Your task to perform on an android device: Go to Wikipedia Image 0: 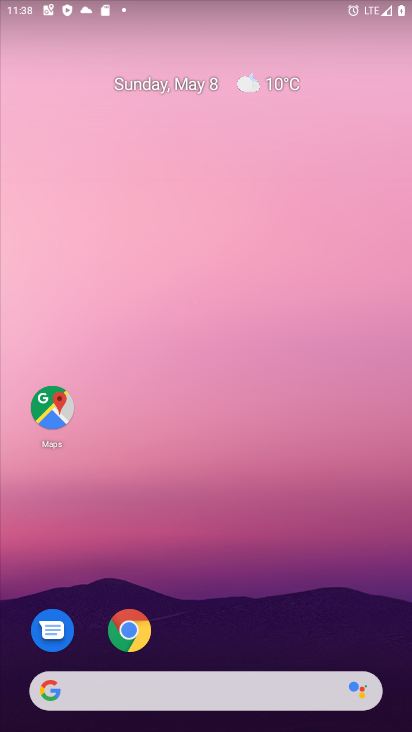
Step 0: drag from (347, 635) to (308, 78)
Your task to perform on an android device: Go to Wikipedia Image 1: 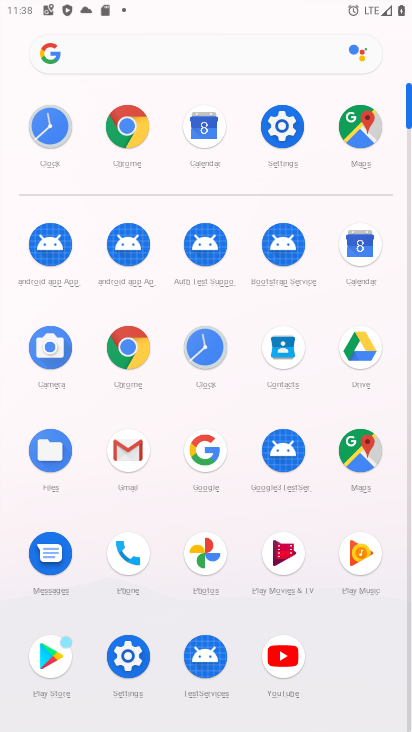
Step 1: click (112, 366)
Your task to perform on an android device: Go to Wikipedia Image 2: 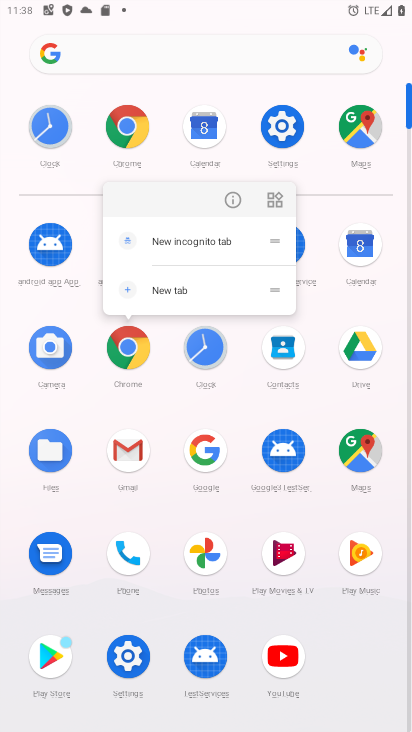
Step 2: click (135, 343)
Your task to perform on an android device: Go to Wikipedia Image 3: 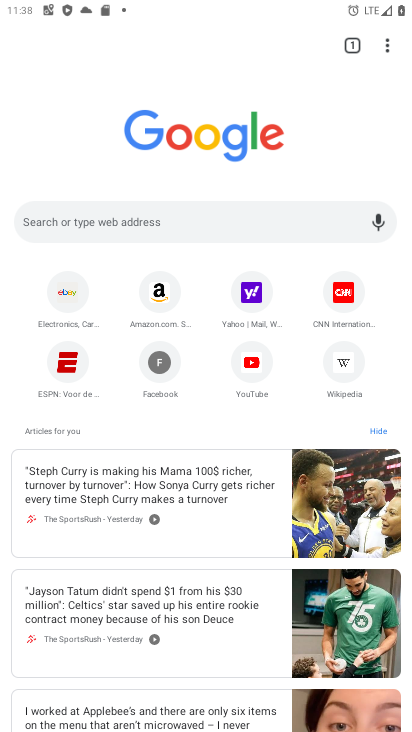
Step 3: click (189, 217)
Your task to perform on an android device: Go to Wikipedia Image 4: 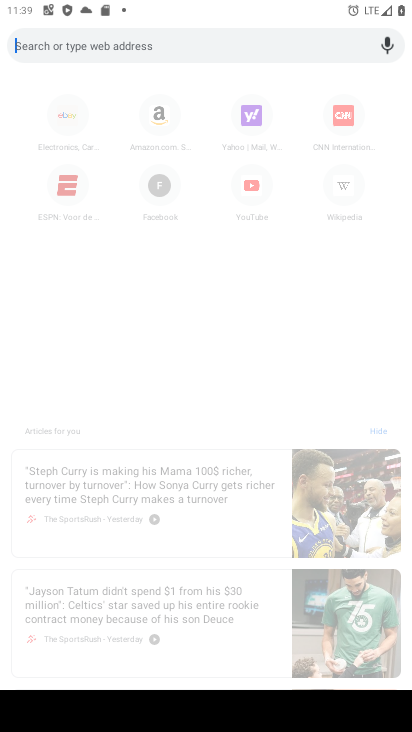
Step 4: type "wikipedia"
Your task to perform on an android device: Go to Wikipedia Image 5: 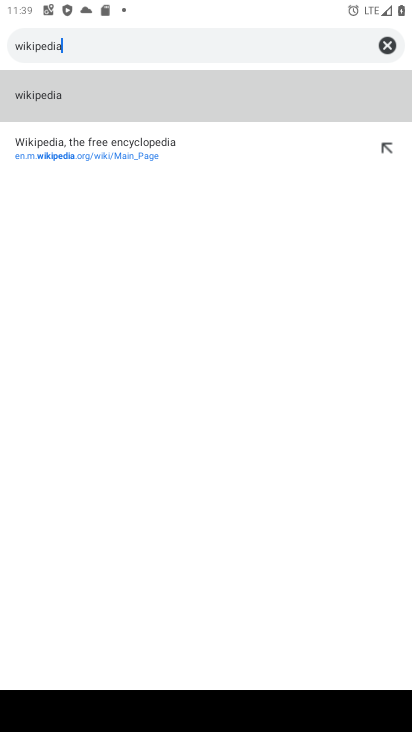
Step 5: click (265, 104)
Your task to perform on an android device: Go to Wikipedia Image 6: 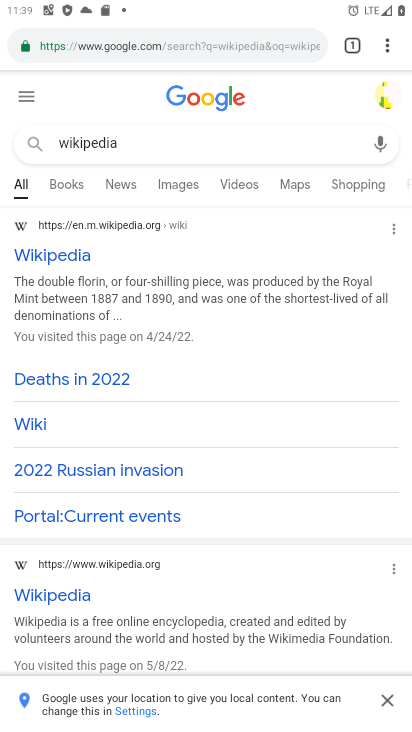
Step 6: task complete